Your task to perform on an android device: toggle notification dots Image 0: 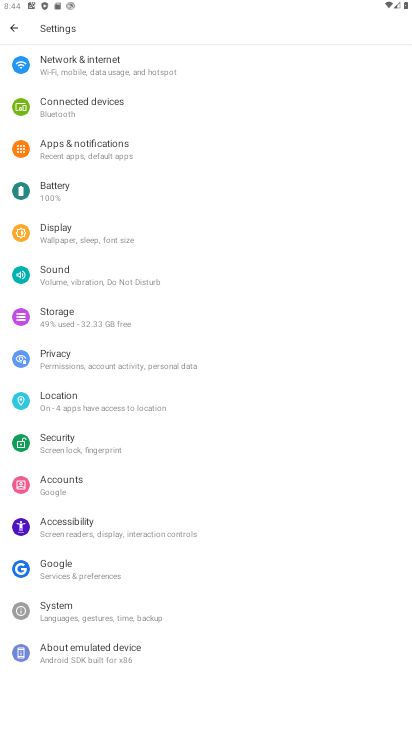
Step 0: click (88, 147)
Your task to perform on an android device: toggle notification dots Image 1: 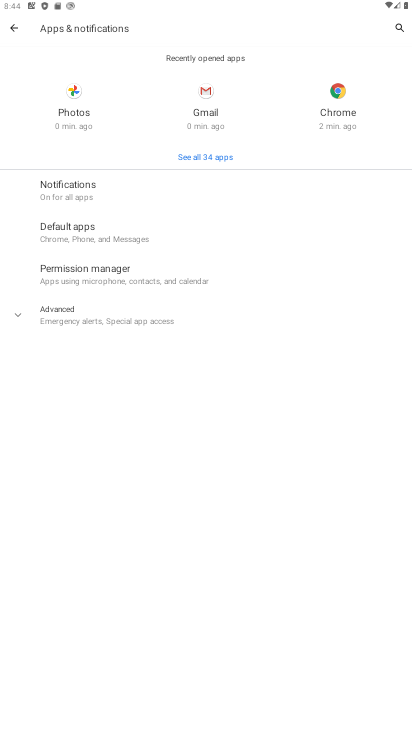
Step 1: click (86, 194)
Your task to perform on an android device: toggle notification dots Image 2: 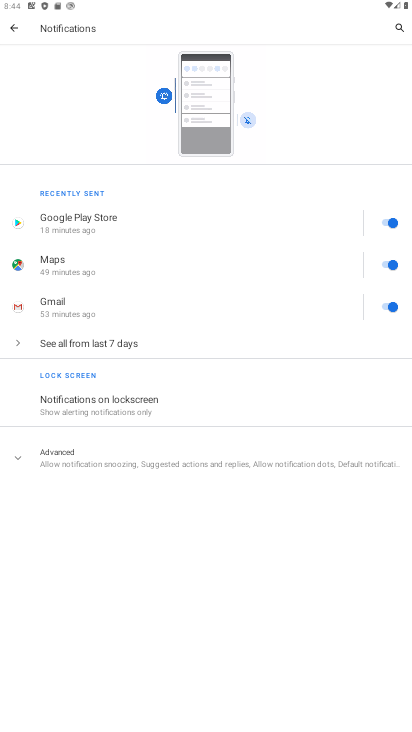
Step 2: click (208, 459)
Your task to perform on an android device: toggle notification dots Image 3: 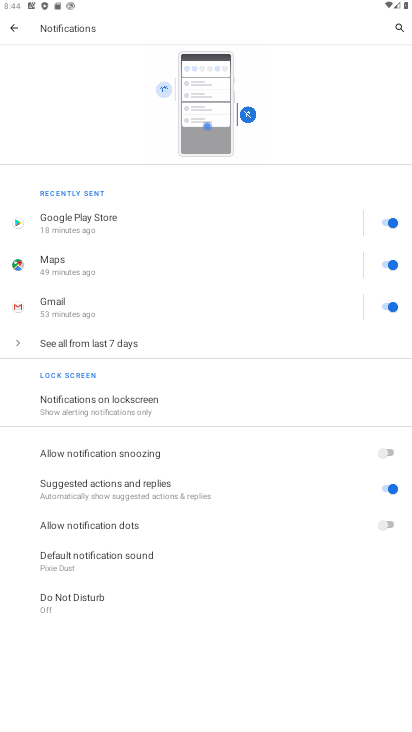
Step 3: click (383, 523)
Your task to perform on an android device: toggle notification dots Image 4: 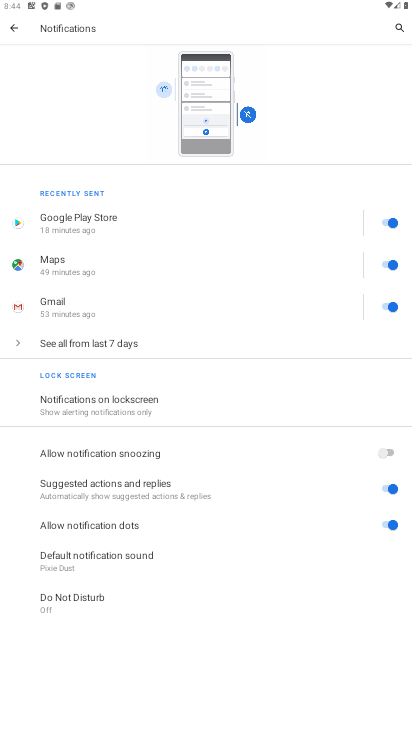
Step 4: task complete